Your task to perform on an android device: Open Youtube and go to the subscriptions tab Image 0: 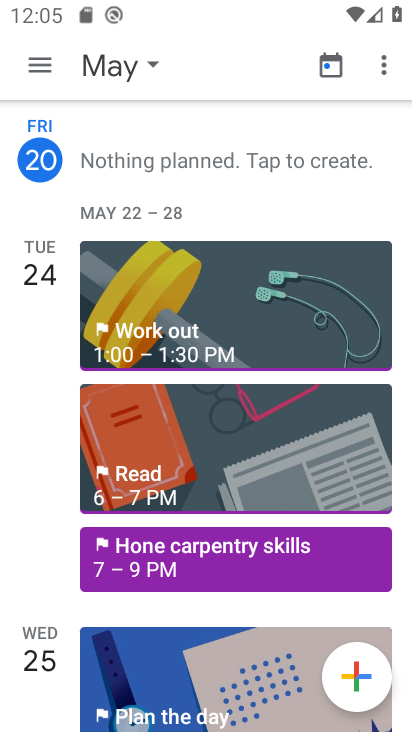
Step 0: press home button
Your task to perform on an android device: Open Youtube and go to the subscriptions tab Image 1: 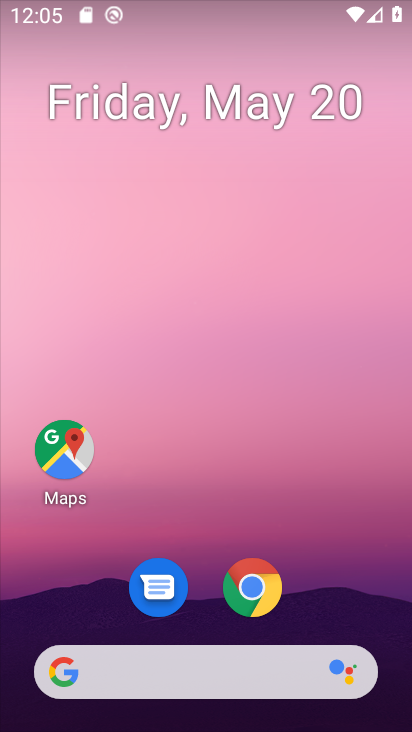
Step 1: drag from (361, 617) to (360, 185)
Your task to perform on an android device: Open Youtube and go to the subscriptions tab Image 2: 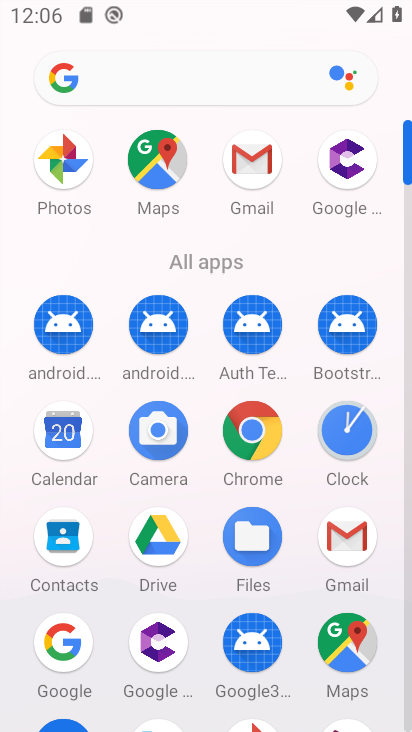
Step 2: drag from (385, 583) to (393, 383)
Your task to perform on an android device: Open Youtube and go to the subscriptions tab Image 3: 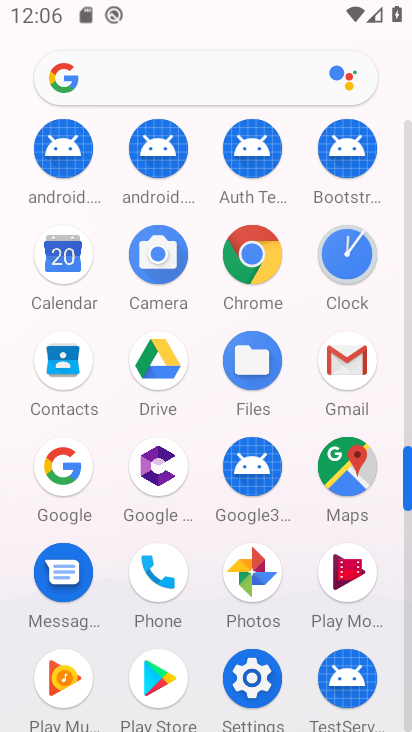
Step 3: drag from (386, 630) to (378, 426)
Your task to perform on an android device: Open Youtube and go to the subscriptions tab Image 4: 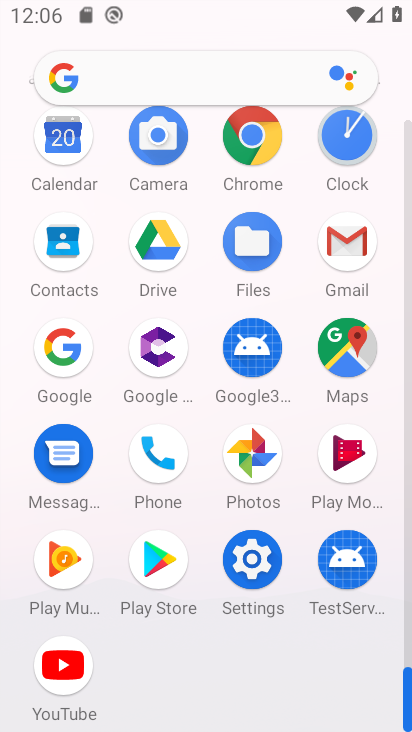
Step 4: click (68, 672)
Your task to perform on an android device: Open Youtube and go to the subscriptions tab Image 5: 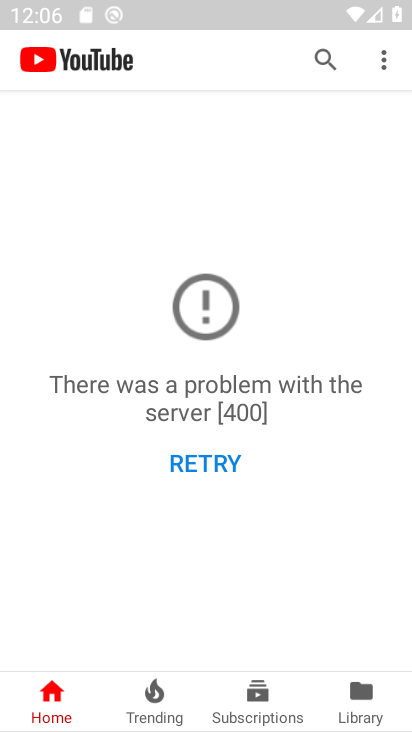
Step 5: click (259, 707)
Your task to perform on an android device: Open Youtube and go to the subscriptions tab Image 6: 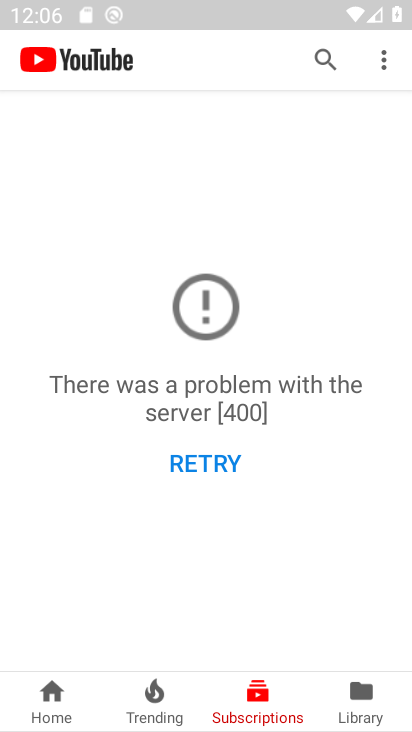
Step 6: task complete